Your task to perform on an android device: Toggle the flashlight Image 0: 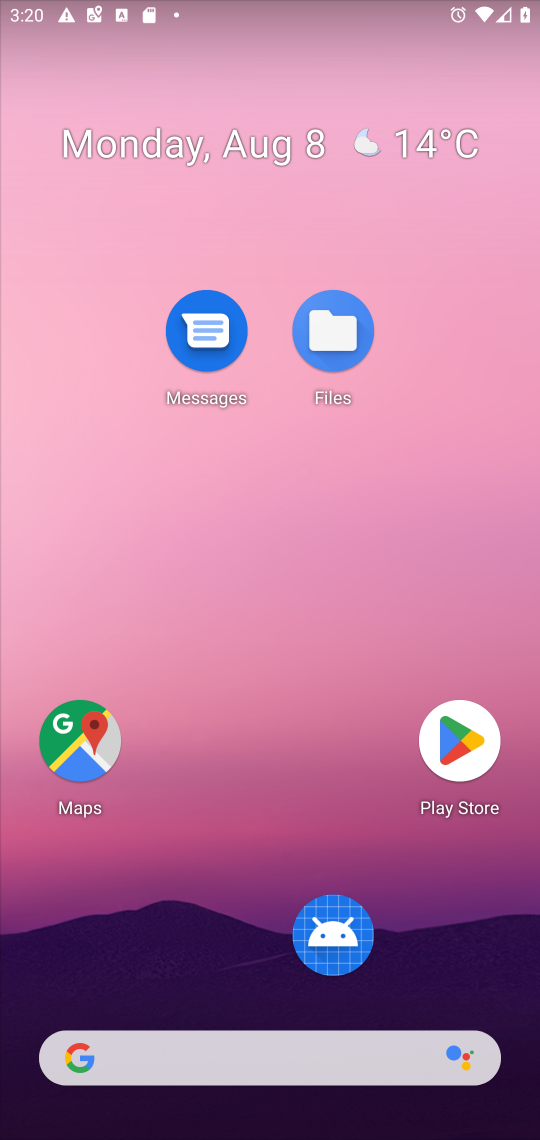
Step 0: drag from (336, 162) to (458, 1011)
Your task to perform on an android device: Toggle the flashlight Image 1: 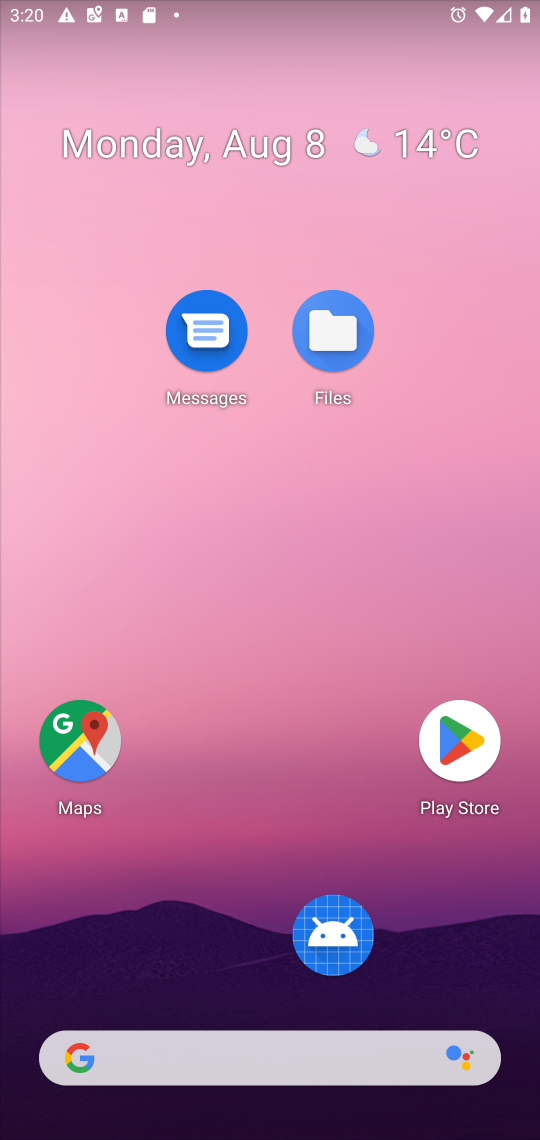
Step 1: task complete